Your task to perform on an android device: open app "Messages" (install if not already installed) Image 0: 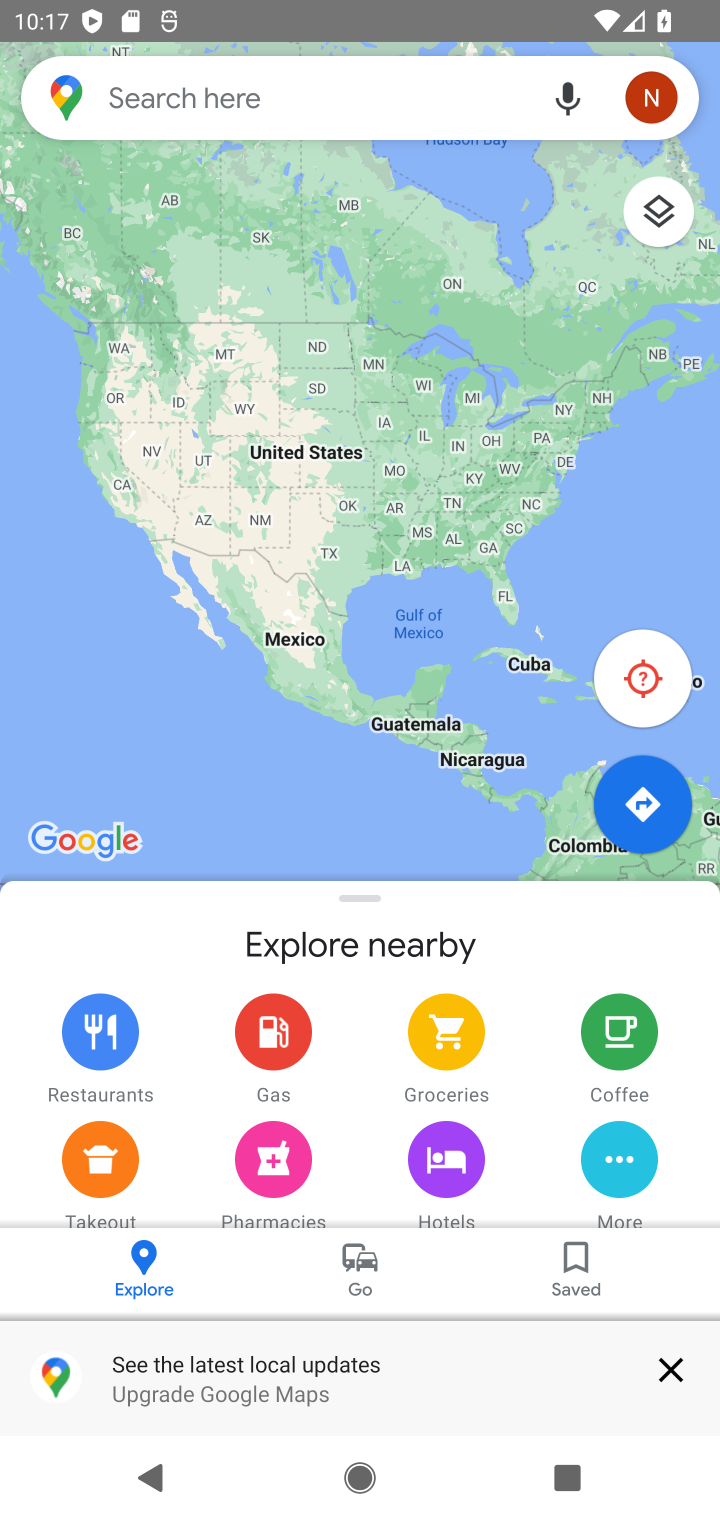
Step 0: press home button
Your task to perform on an android device: open app "Messages" (install if not already installed) Image 1: 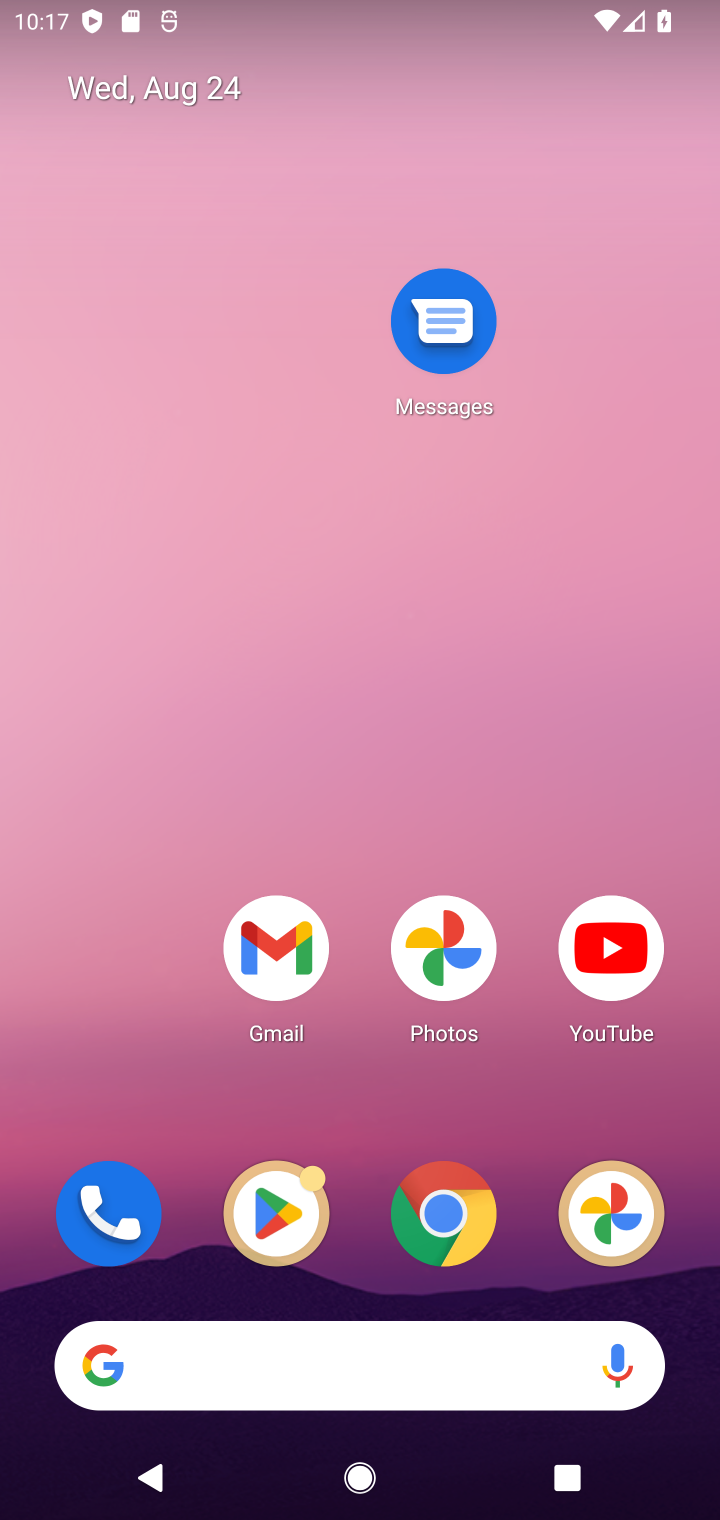
Step 1: click (280, 1214)
Your task to perform on an android device: open app "Messages" (install if not already installed) Image 2: 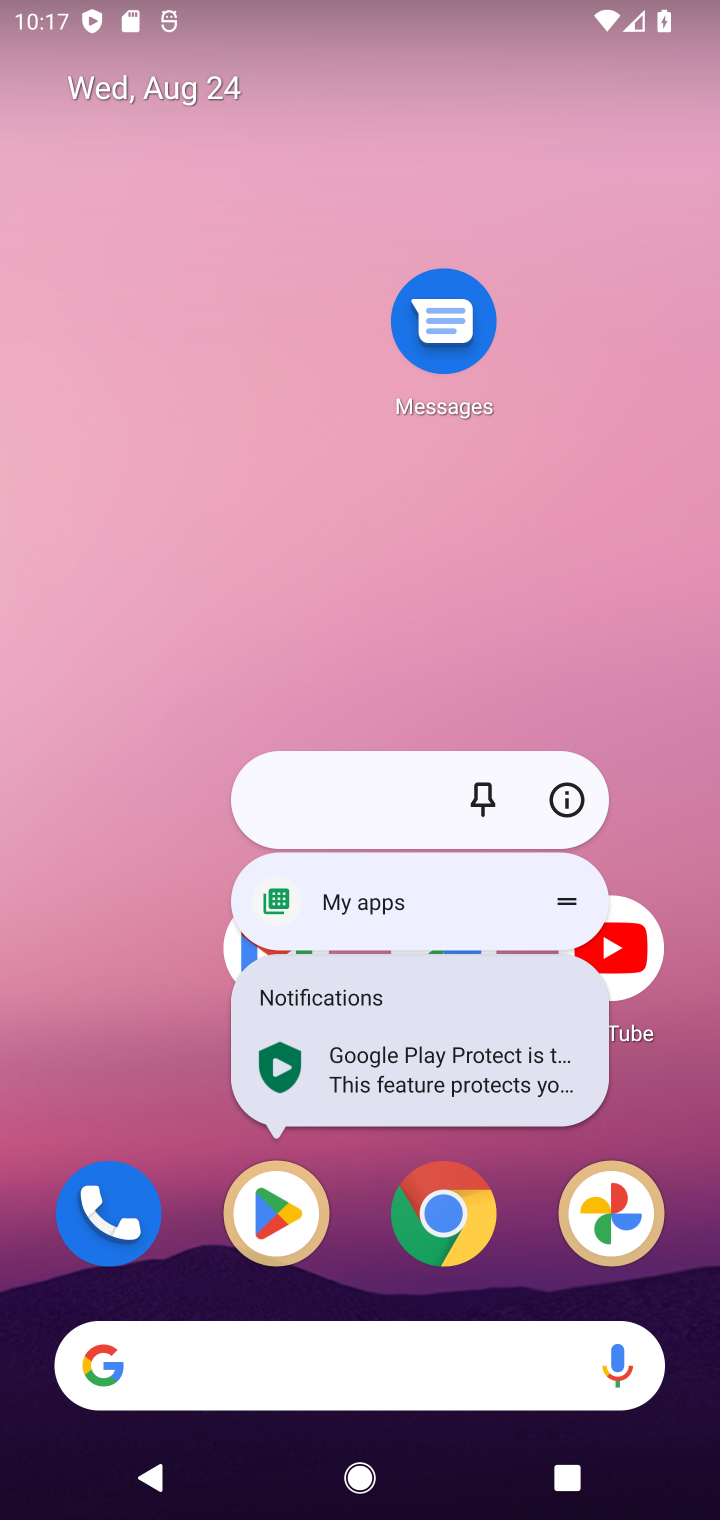
Step 2: click (278, 1173)
Your task to perform on an android device: open app "Messages" (install if not already installed) Image 3: 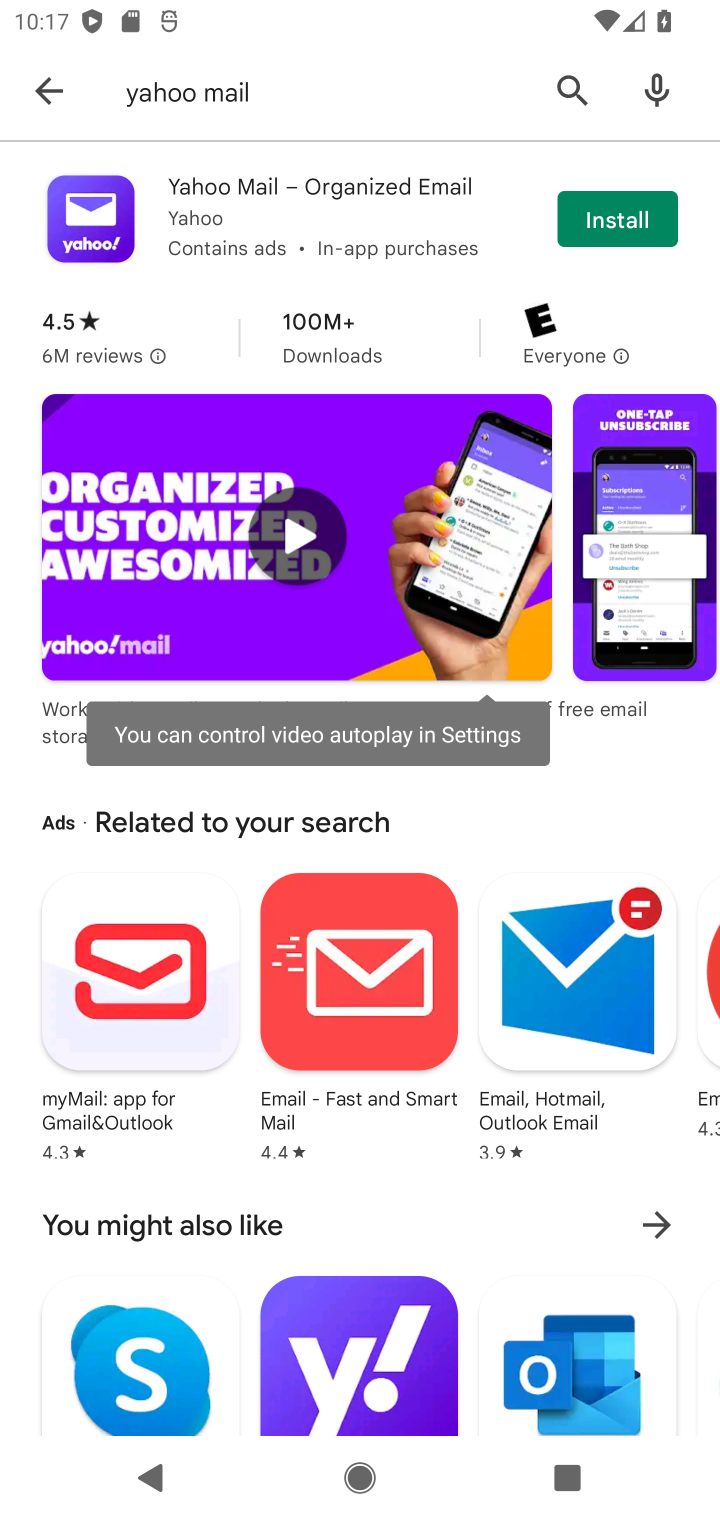
Step 3: click (287, 106)
Your task to perform on an android device: open app "Messages" (install if not already installed) Image 4: 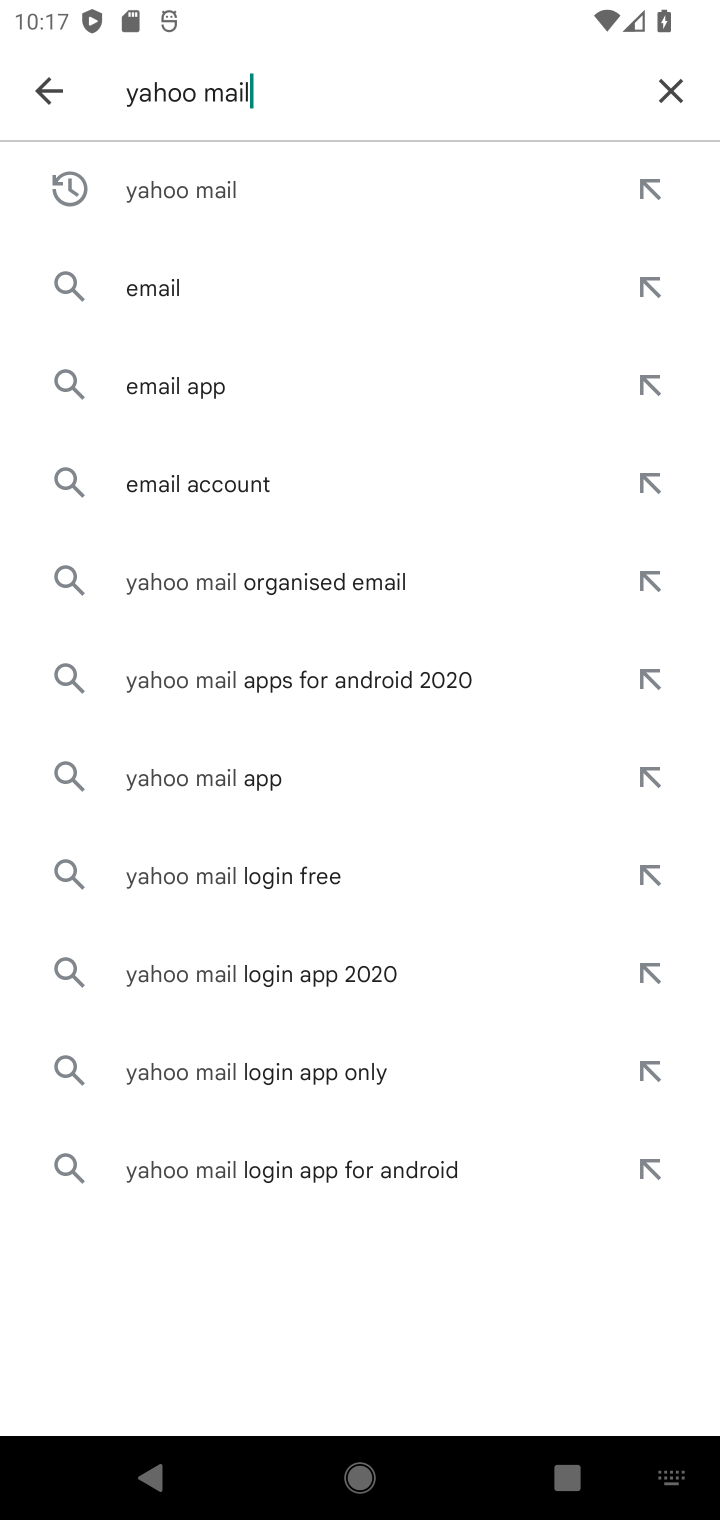
Step 4: click (663, 86)
Your task to perform on an android device: open app "Messages" (install if not already installed) Image 5: 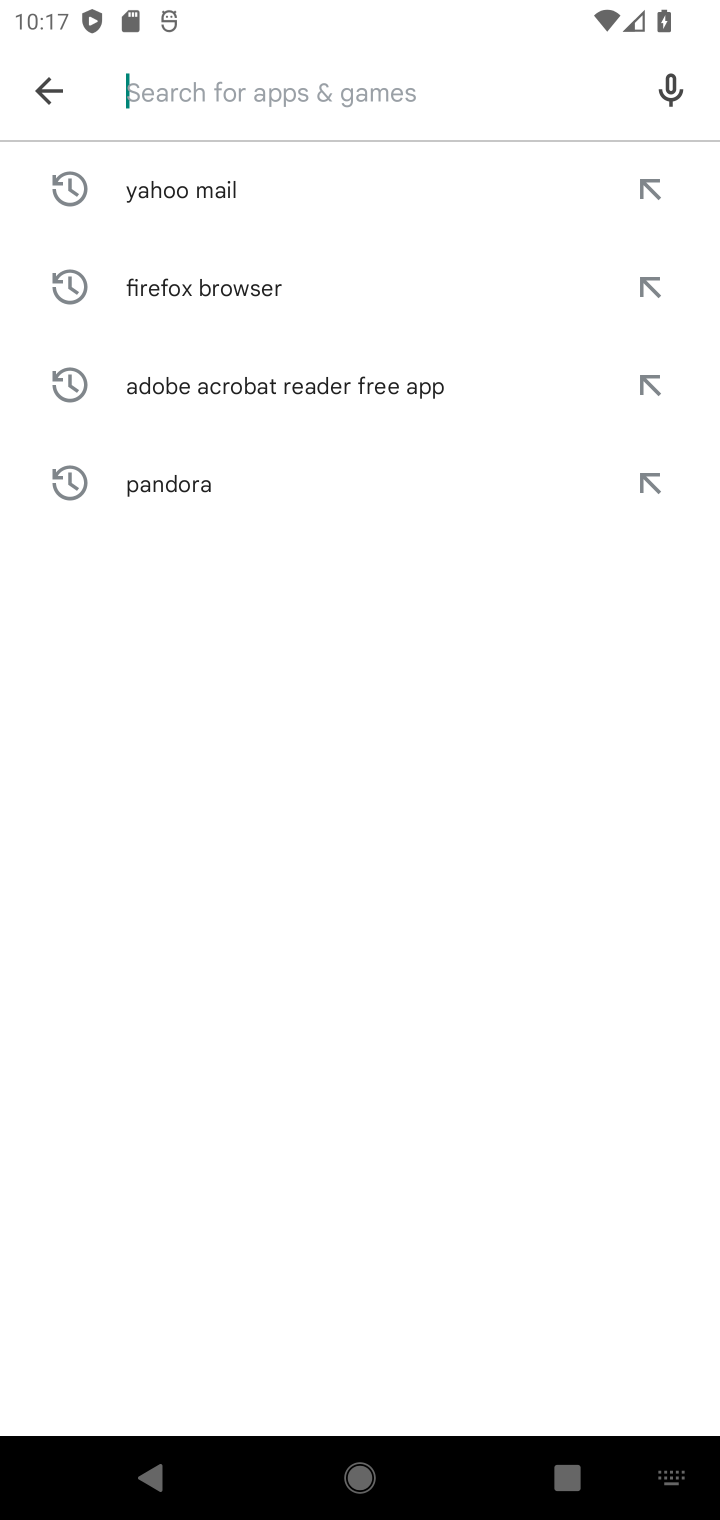
Step 5: type "messages"
Your task to perform on an android device: open app "Messages" (install if not already installed) Image 6: 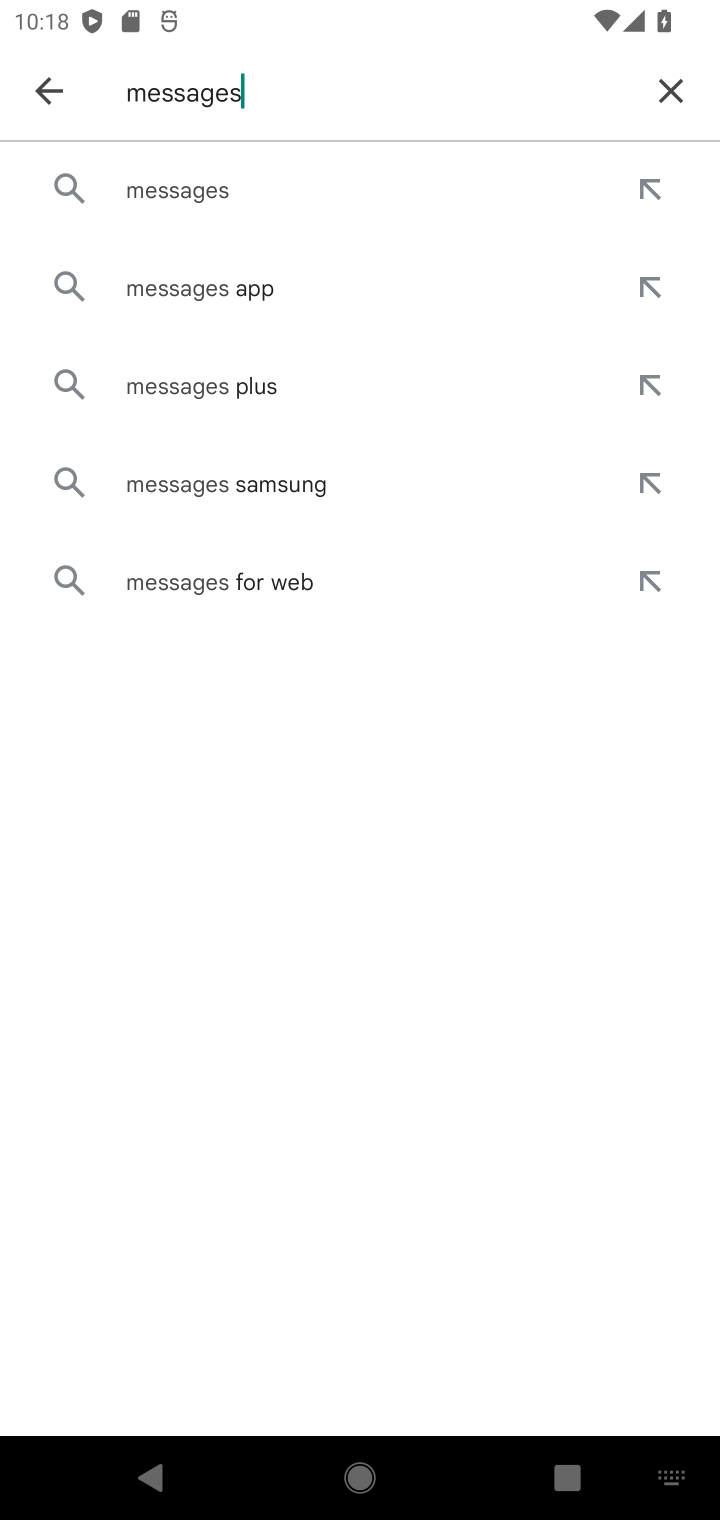
Step 6: click (184, 192)
Your task to perform on an android device: open app "Messages" (install if not already installed) Image 7: 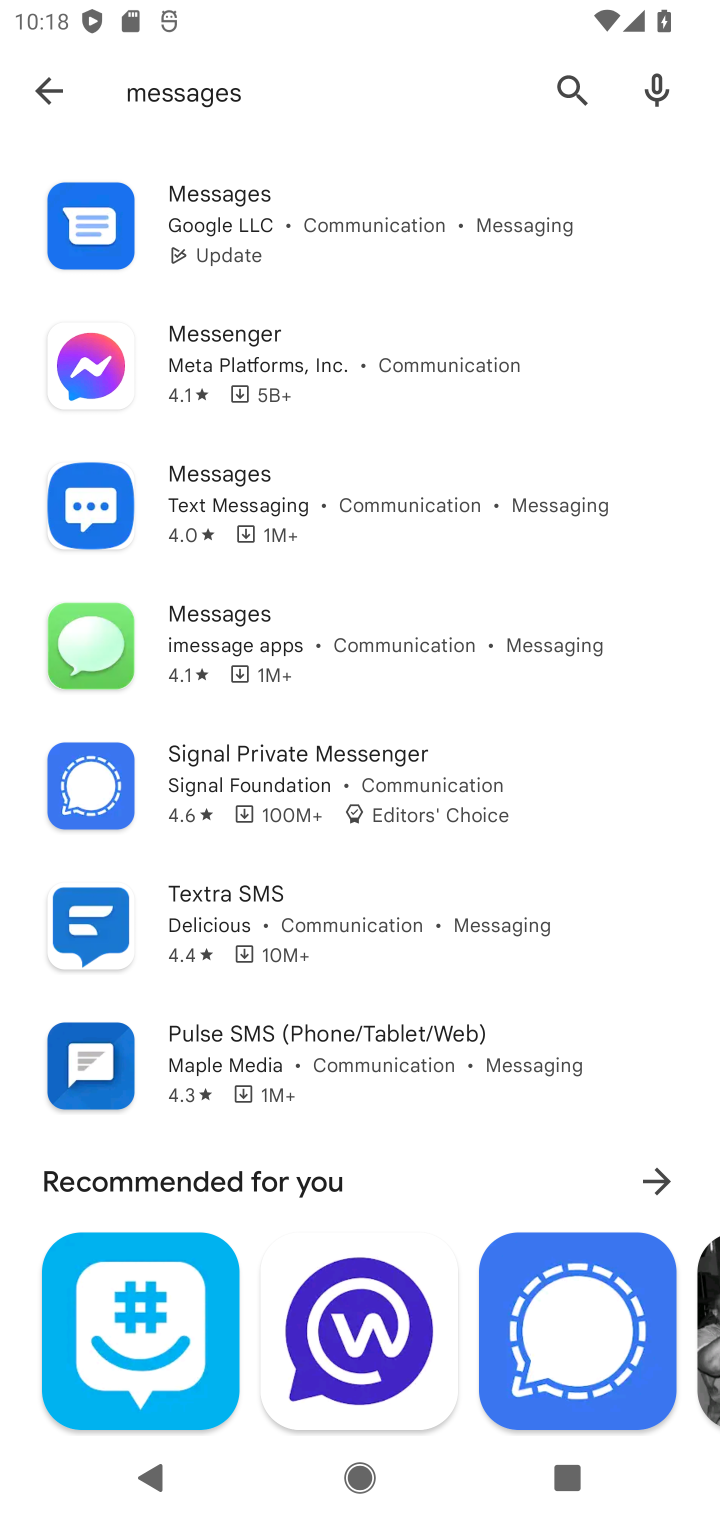
Step 7: click (348, 224)
Your task to perform on an android device: open app "Messages" (install if not already installed) Image 8: 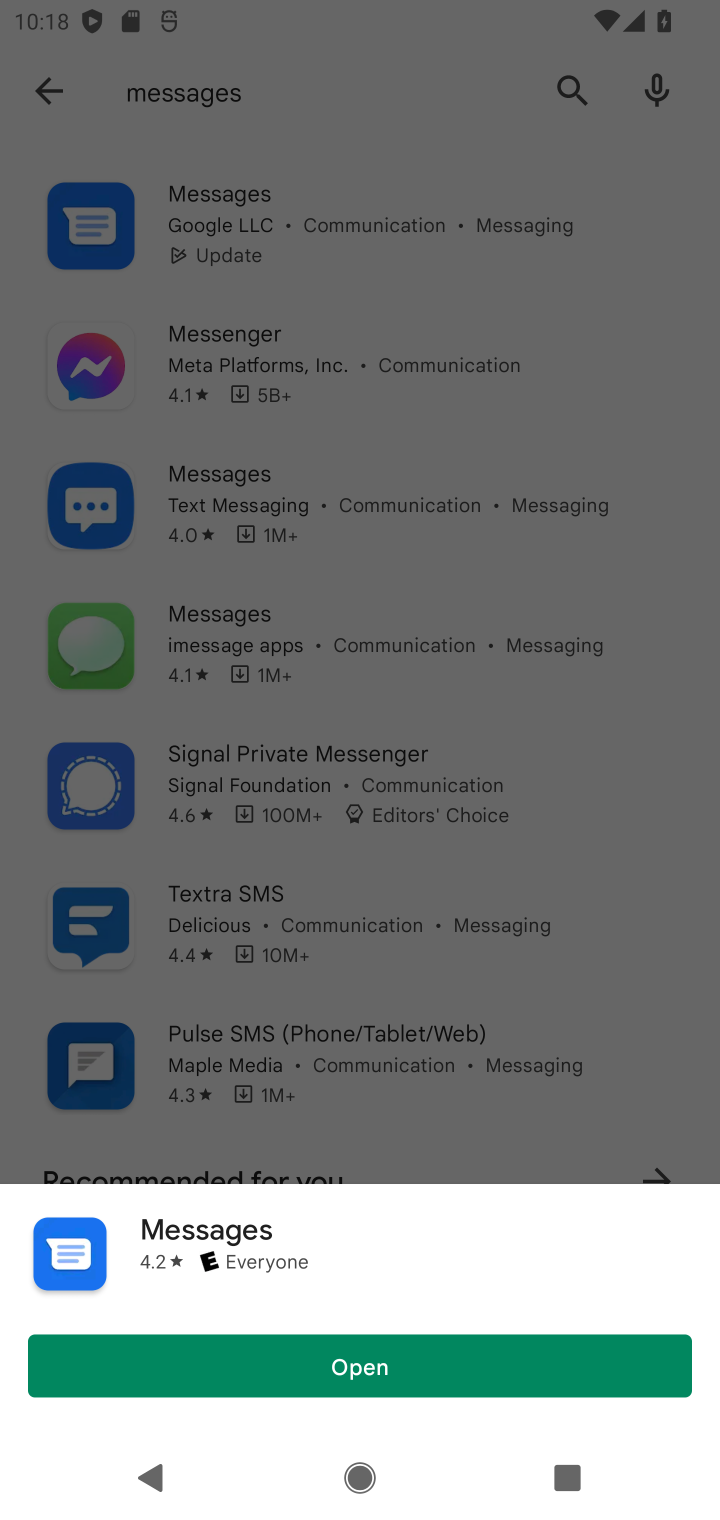
Step 8: click (188, 1355)
Your task to perform on an android device: open app "Messages" (install if not already installed) Image 9: 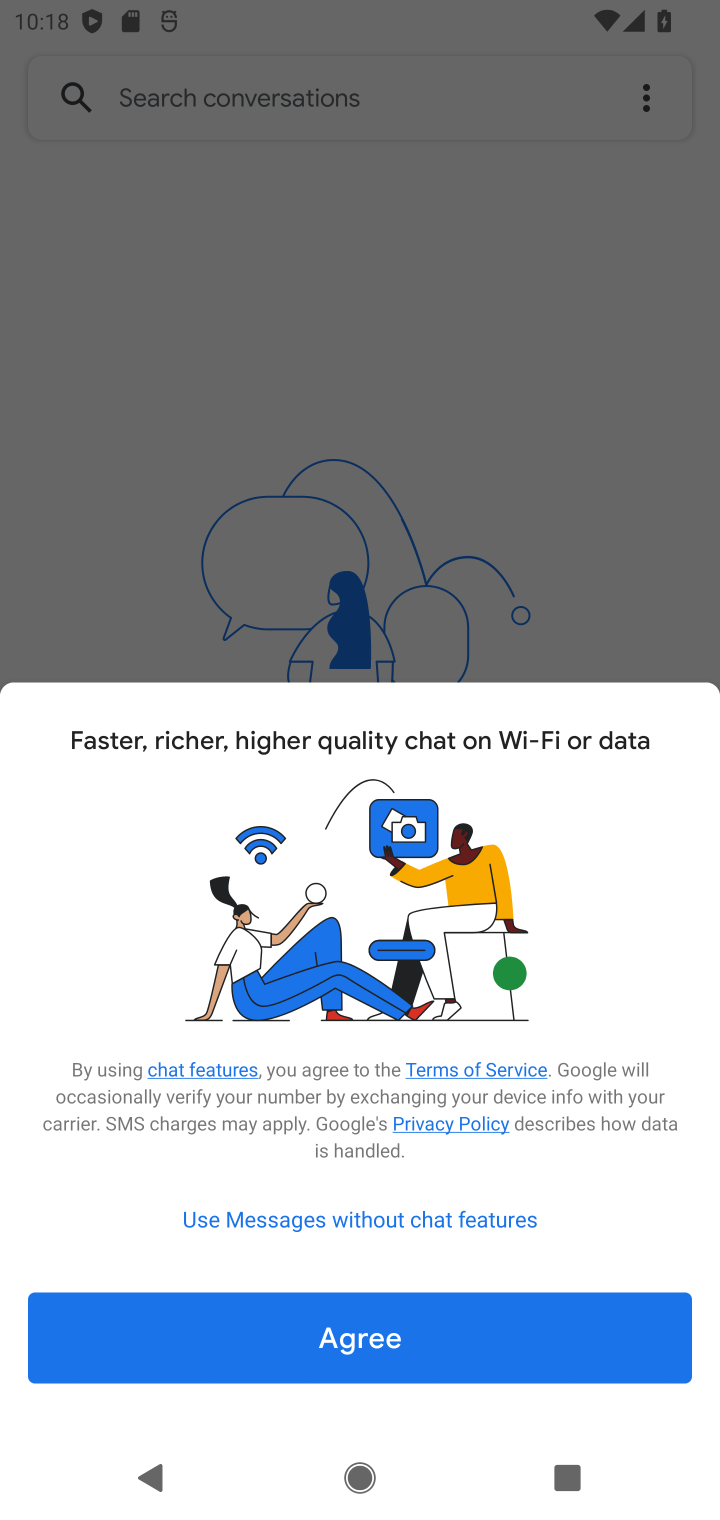
Step 9: click (214, 1357)
Your task to perform on an android device: open app "Messages" (install if not already installed) Image 10: 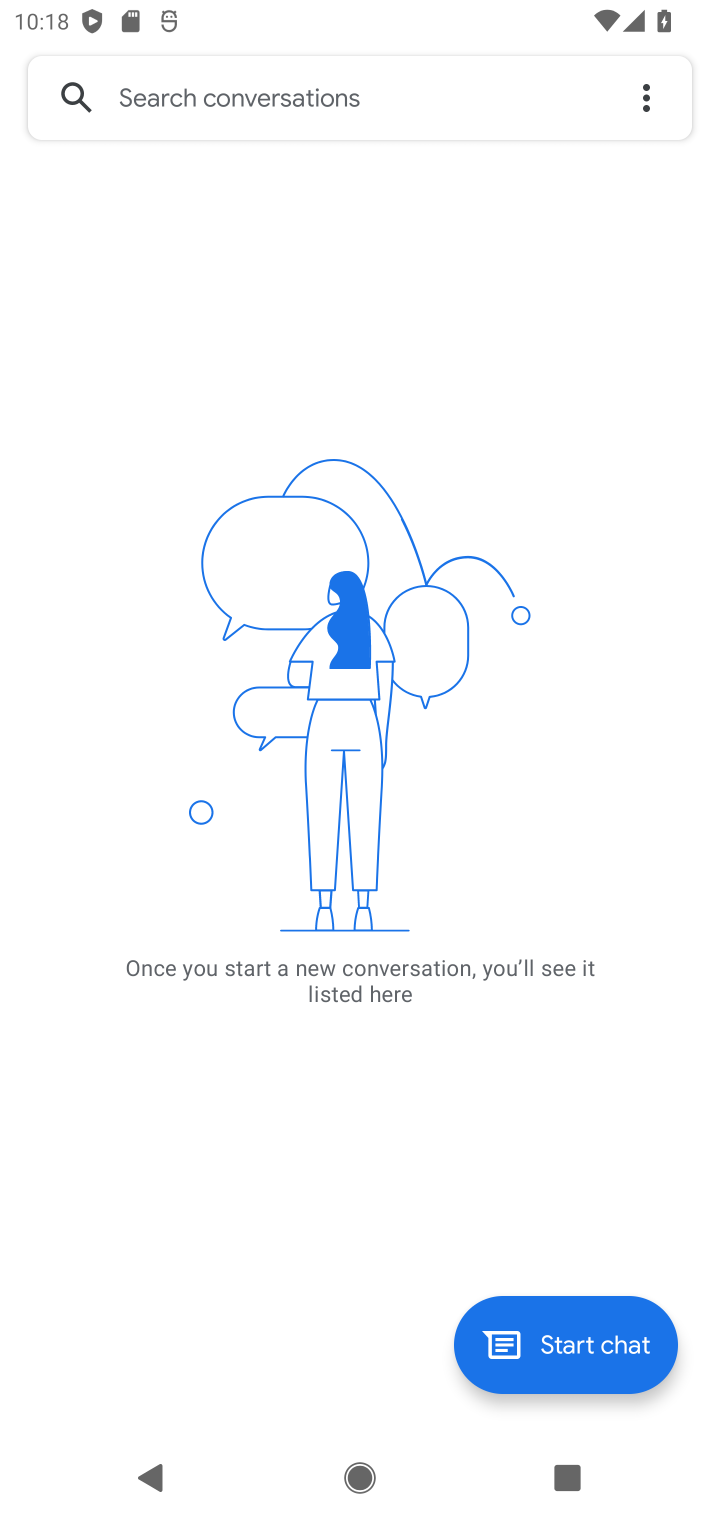
Step 10: task complete